Your task to perform on an android device: toggle notifications settings in the gmail app Image 0: 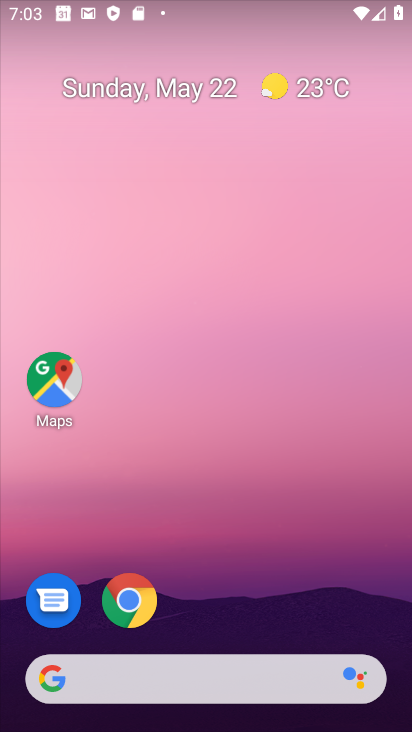
Step 0: drag from (383, 624) to (253, 65)
Your task to perform on an android device: toggle notifications settings in the gmail app Image 1: 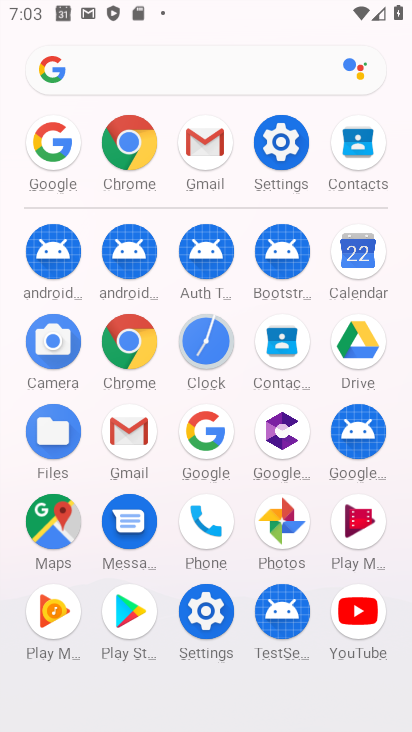
Step 1: click (137, 434)
Your task to perform on an android device: toggle notifications settings in the gmail app Image 2: 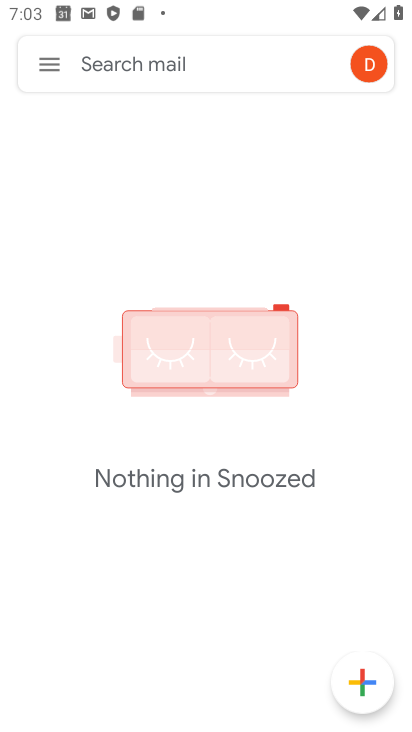
Step 2: click (53, 63)
Your task to perform on an android device: toggle notifications settings in the gmail app Image 3: 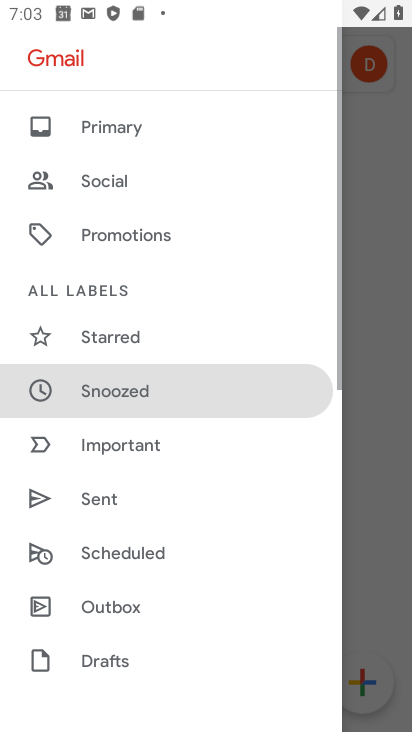
Step 3: drag from (197, 644) to (159, 64)
Your task to perform on an android device: toggle notifications settings in the gmail app Image 4: 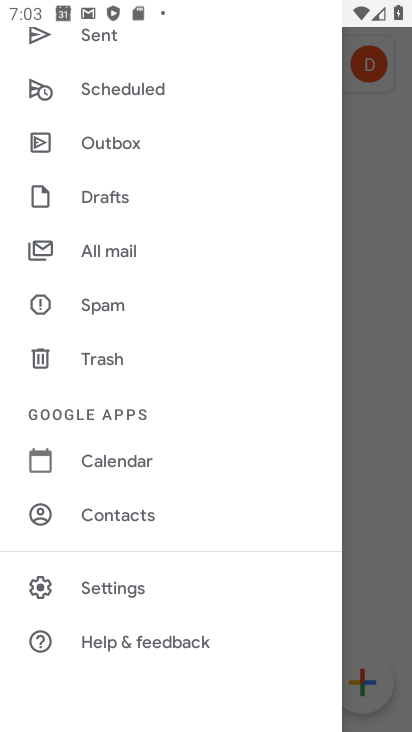
Step 4: click (133, 593)
Your task to perform on an android device: toggle notifications settings in the gmail app Image 5: 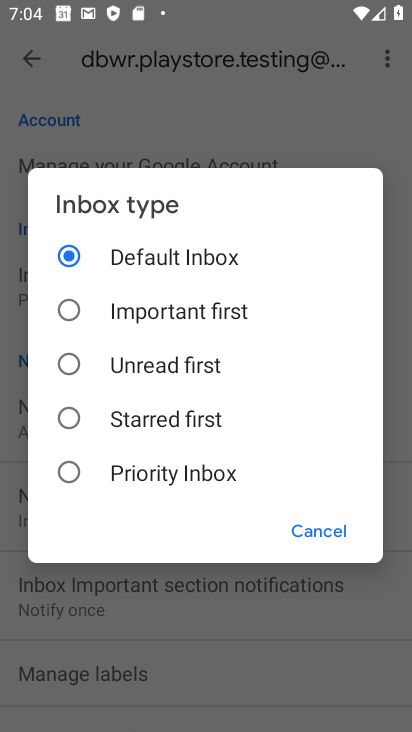
Step 5: click (335, 520)
Your task to perform on an android device: toggle notifications settings in the gmail app Image 6: 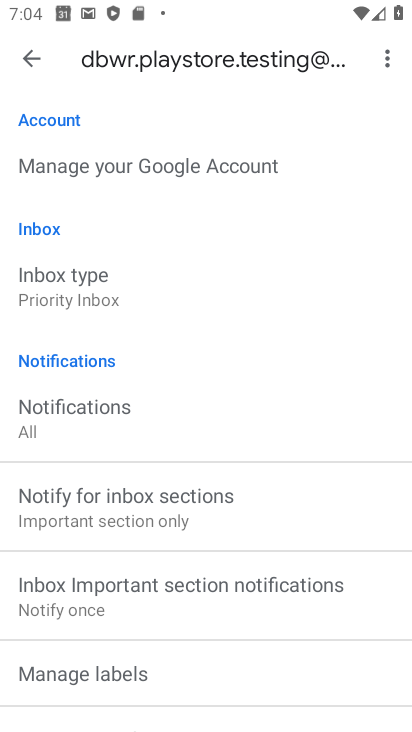
Step 6: click (90, 428)
Your task to perform on an android device: toggle notifications settings in the gmail app Image 7: 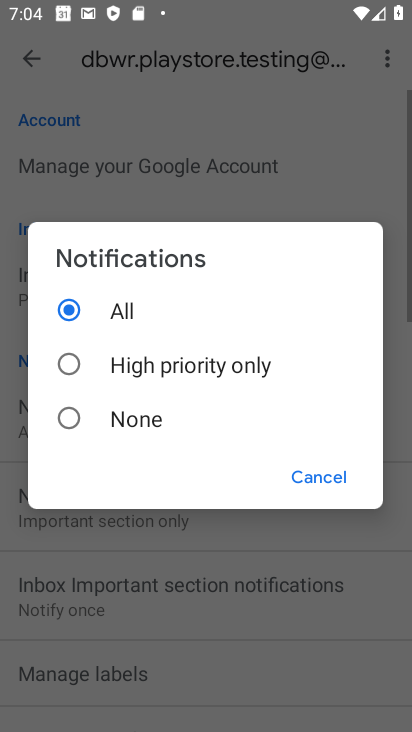
Step 7: click (94, 412)
Your task to perform on an android device: toggle notifications settings in the gmail app Image 8: 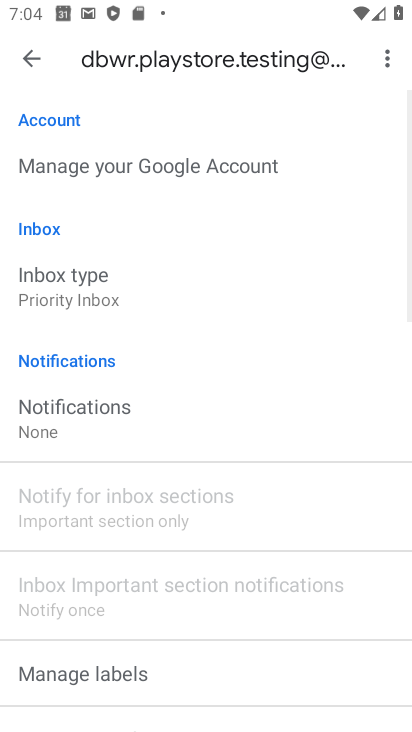
Step 8: task complete